Your task to perform on an android device: open a new tab in the chrome app Image 0: 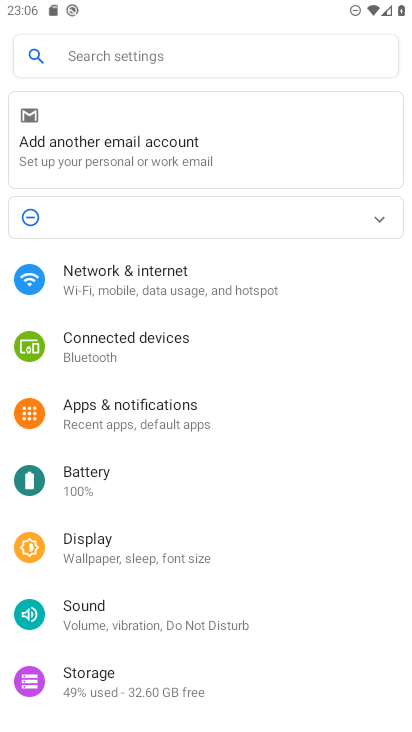
Step 0: press home button
Your task to perform on an android device: open a new tab in the chrome app Image 1: 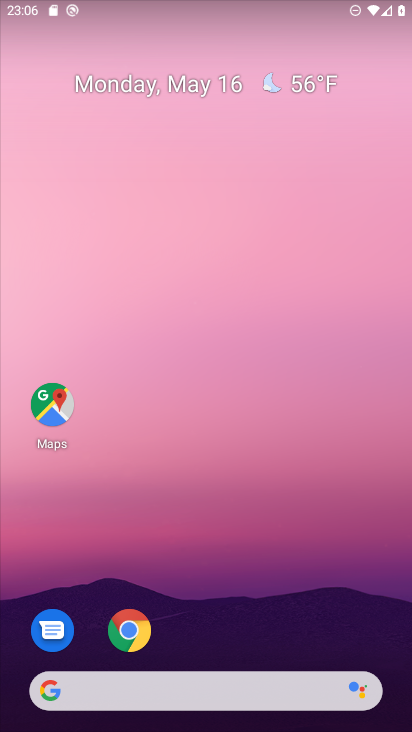
Step 1: click (137, 632)
Your task to perform on an android device: open a new tab in the chrome app Image 2: 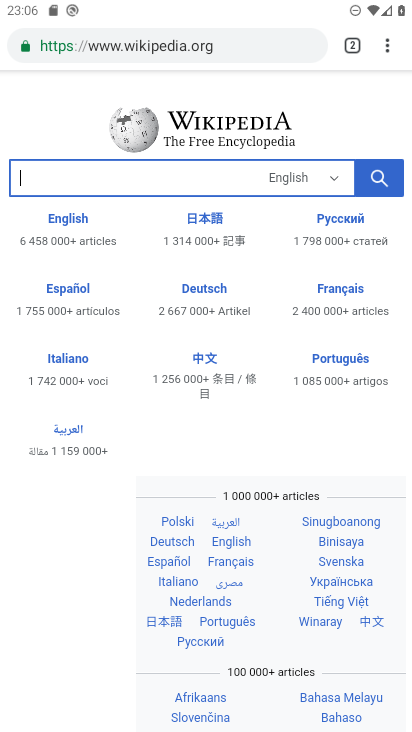
Step 2: click (389, 45)
Your task to perform on an android device: open a new tab in the chrome app Image 3: 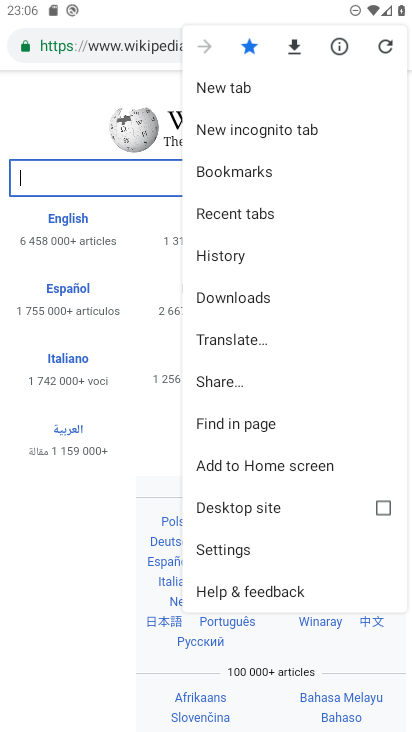
Step 3: click (320, 86)
Your task to perform on an android device: open a new tab in the chrome app Image 4: 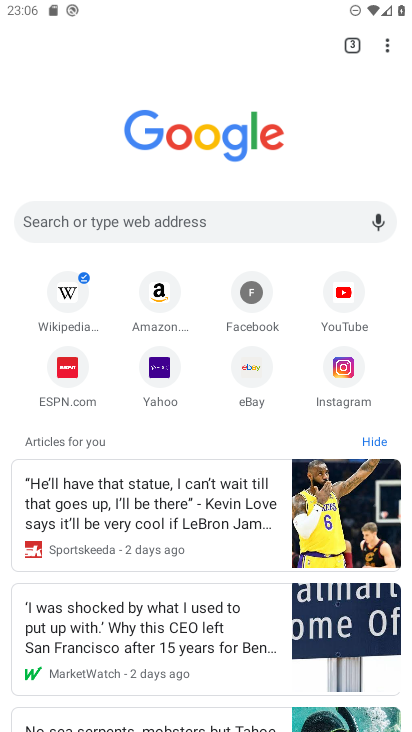
Step 4: task complete